Your task to perform on an android device: clear all cookies in the chrome app Image 0: 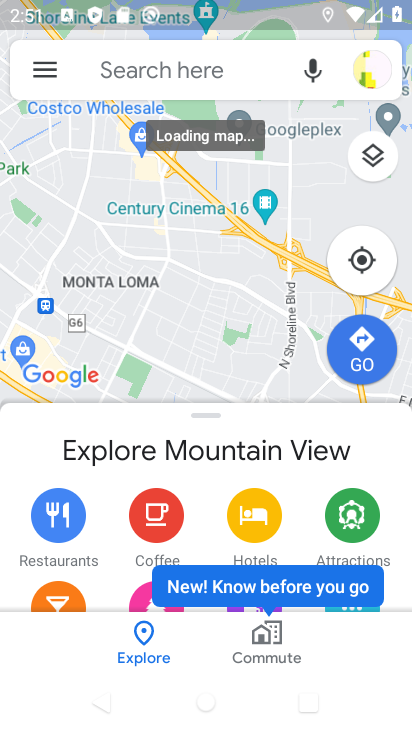
Step 0: press home button
Your task to perform on an android device: clear all cookies in the chrome app Image 1: 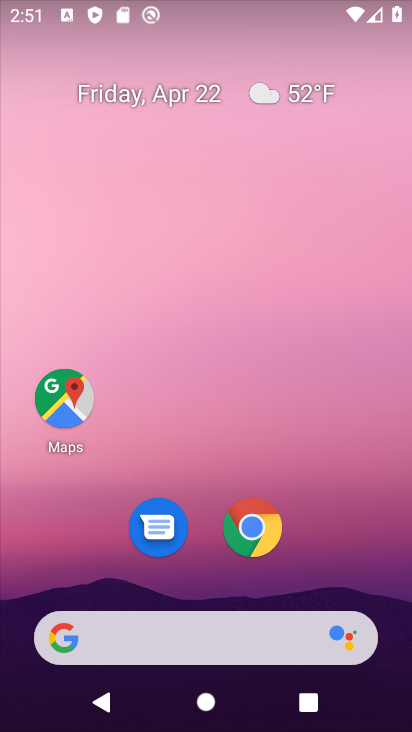
Step 1: drag from (328, 551) to (404, 76)
Your task to perform on an android device: clear all cookies in the chrome app Image 2: 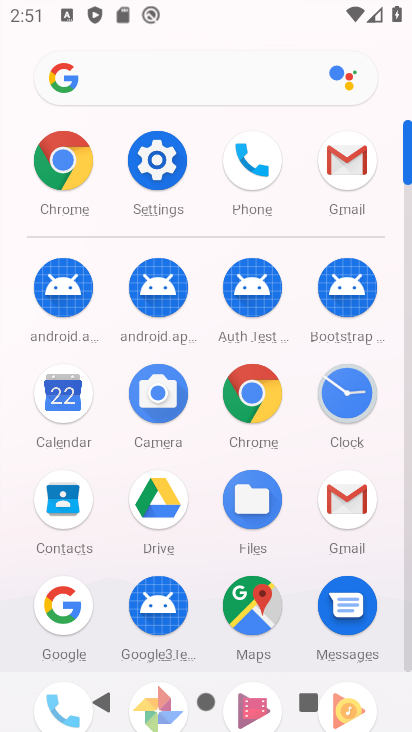
Step 2: click (73, 174)
Your task to perform on an android device: clear all cookies in the chrome app Image 3: 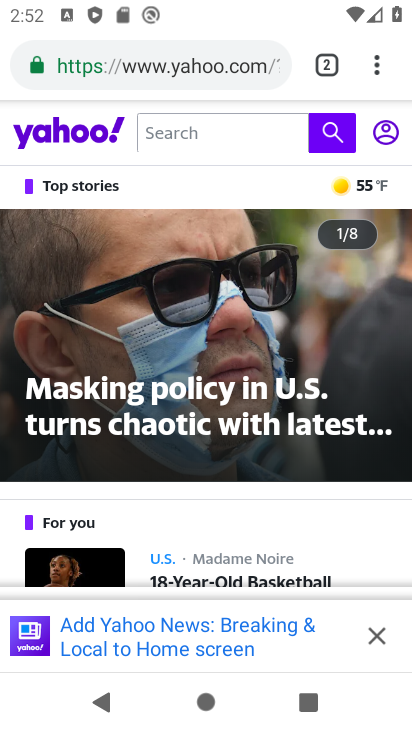
Step 3: drag from (376, 83) to (144, 379)
Your task to perform on an android device: clear all cookies in the chrome app Image 4: 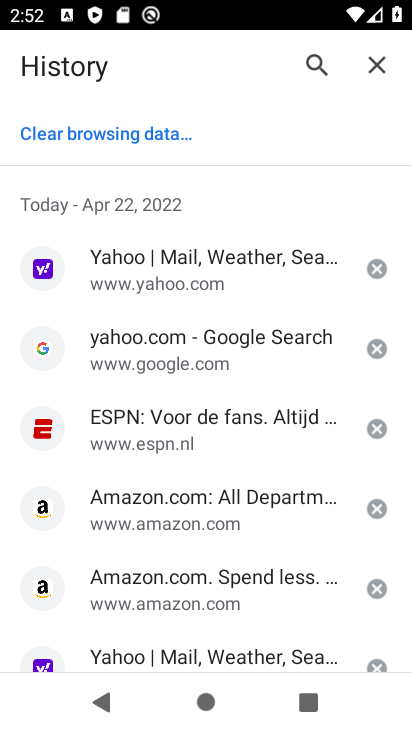
Step 4: click (95, 137)
Your task to perform on an android device: clear all cookies in the chrome app Image 5: 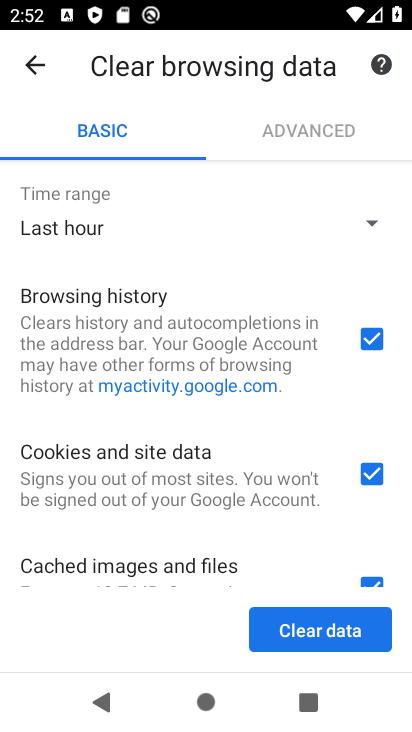
Step 5: drag from (157, 473) to (206, 225)
Your task to perform on an android device: clear all cookies in the chrome app Image 6: 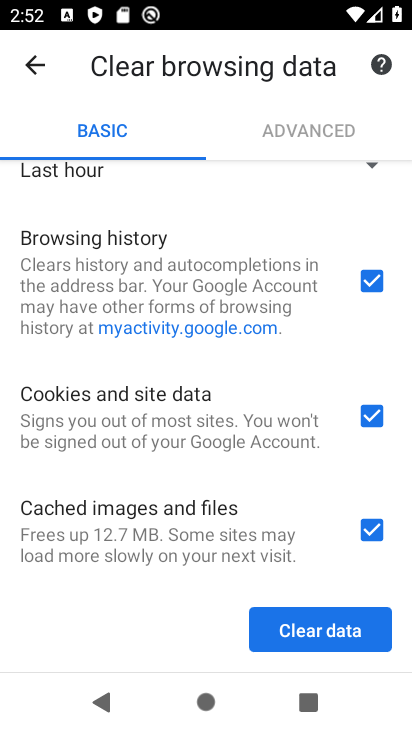
Step 6: click (360, 287)
Your task to perform on an android device: clear all cookies in the chrome app Image 7: 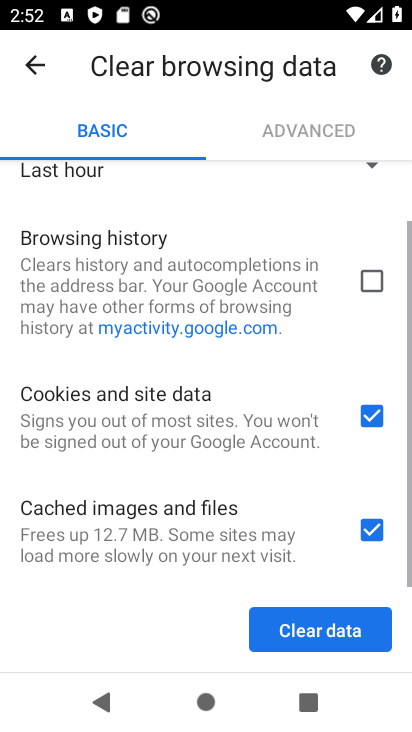
Step 7: click (376, 536)
Your task to perform on an android device: clear all cookies in the chrome app Image 8: 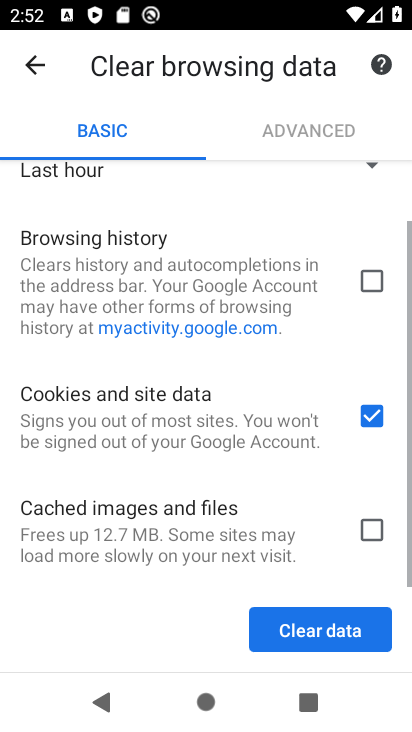
Step 8: drag from (148, 578) to (203, 229)
Your task to perform on an android device: clear all cookies in the chrome app Image 9: 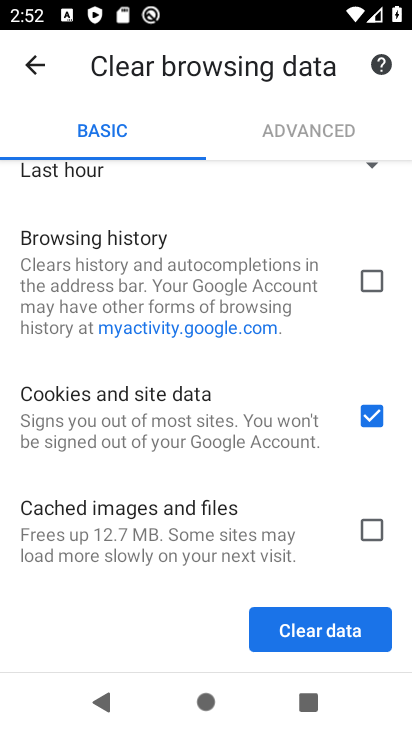
Step 9: click (328, 630)
Your task to perform on an android device: clear all cookies in the chrome app Image 10: 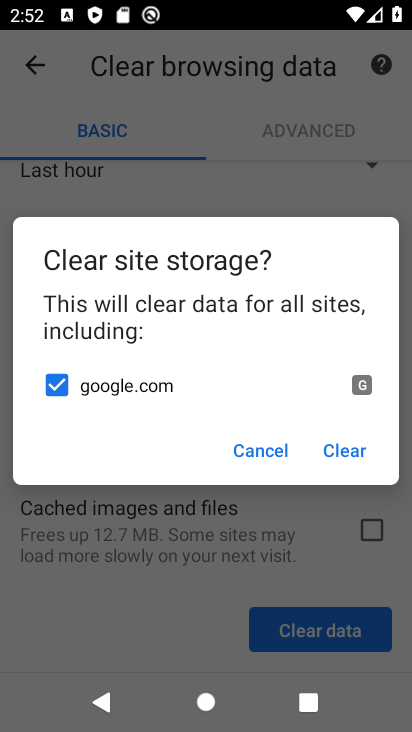
Step 10: click (350, 444)
Your task to perform on an android device: clear all cookies in the chrome app Image 11: 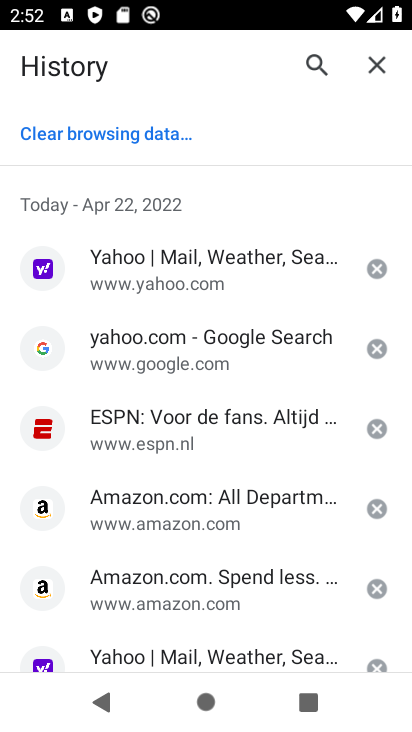
Step 11: task complete